Your task to perform on an android device: delete browsing data in the chrome app Image 0: 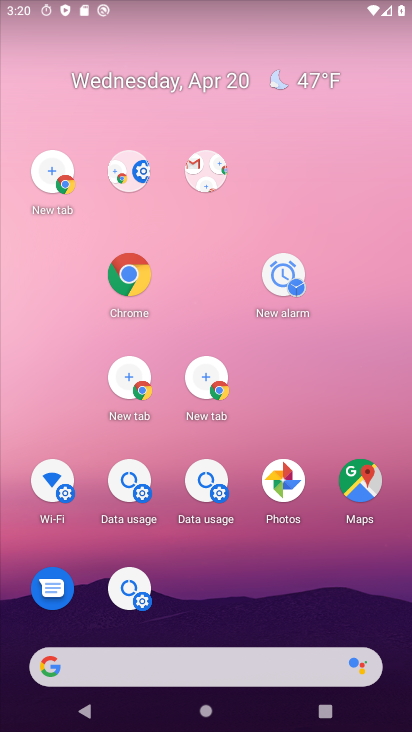
Step 0: drag from (246, 426) to (203, 193)
Your task to perform on an android device: delete browsing data in the chrome app Image 1: 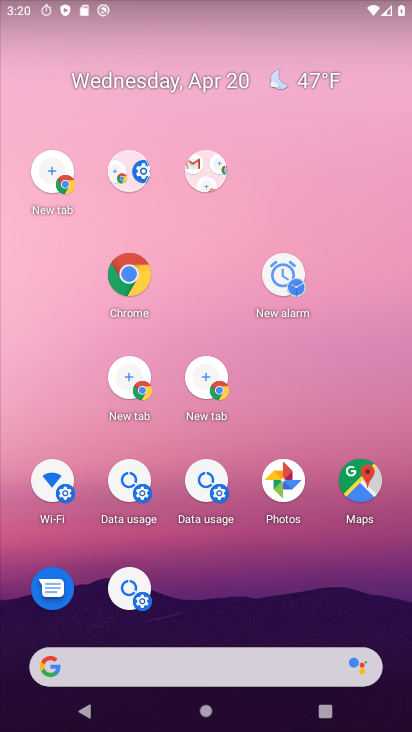
Step 1: click (126, 282)
Your task to perform on an android device: delete browsing data in the chrome app Image 2: 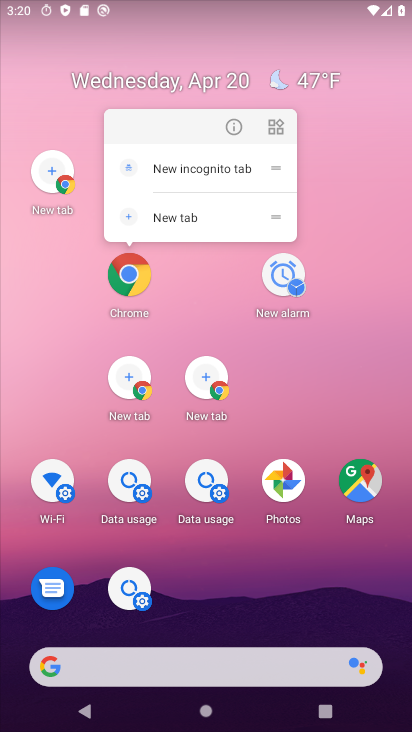
Step 2: click (158, 222)
Your task to perform on an android device: delete browsing data in the chrome app Image 3: 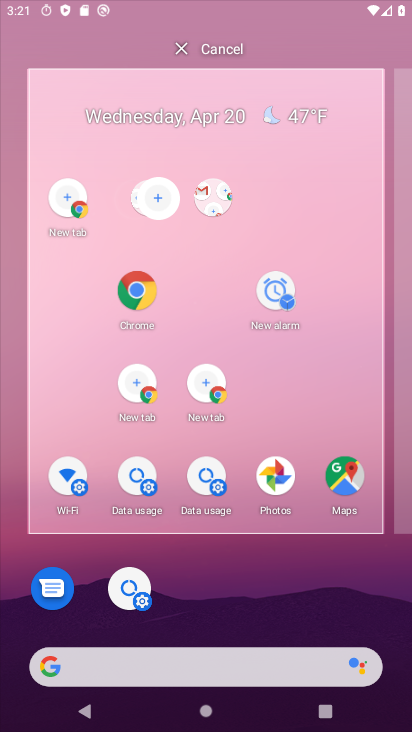
Step 3: click (159, 222)
Your task to perform on an android device: delete browsing data in the chrome app Image 4: 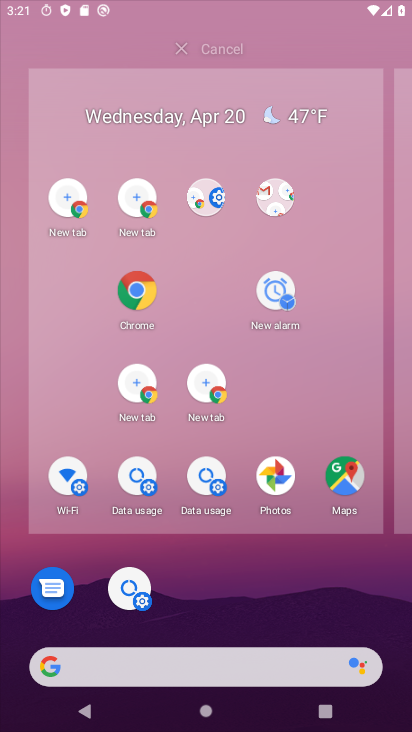
Step 4: click (160, 222)
Your task to perform on an android device: delete browsing data in the chrome app Image 5: 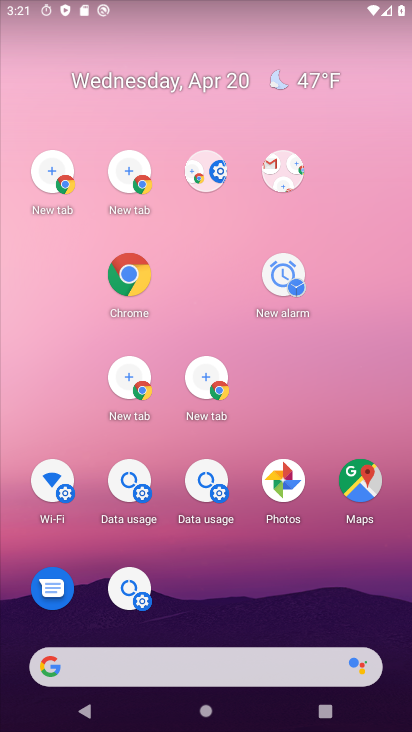
Step 5: click (164, 242)
Your task to perform on an android device: delete browsing data in the chrome app Image 6: 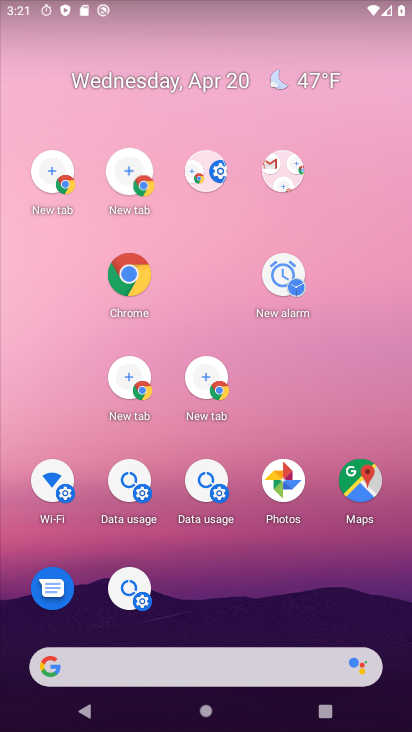
Step 6: click (123, 281)
Your task to perform on an android device: delete browsing data in the chrome app Image 7: 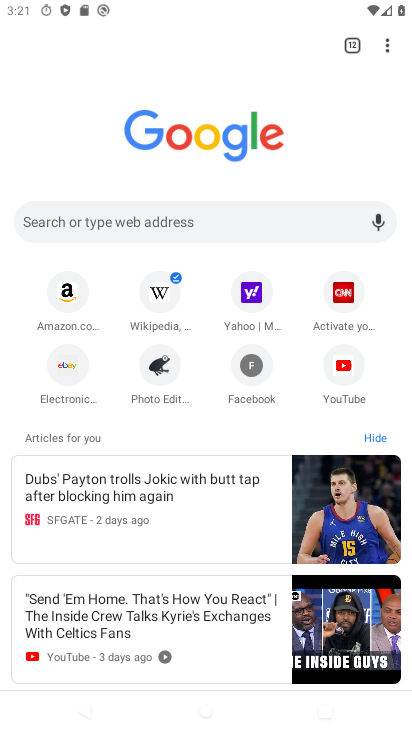
Step 7: drag from (389, 31) to (219, 313)
Your task to perform on an android device: delete browsing data in the chrome app Image 8: 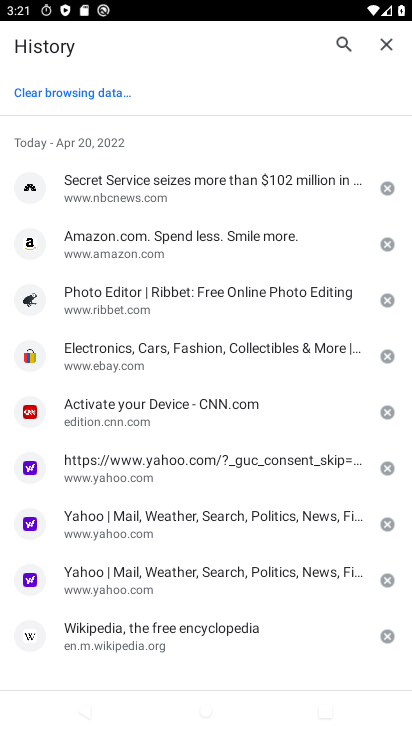
Step 8: click (172, 184)
Your task to perform on an android device: delete browsing data in the chrome app Image 9: 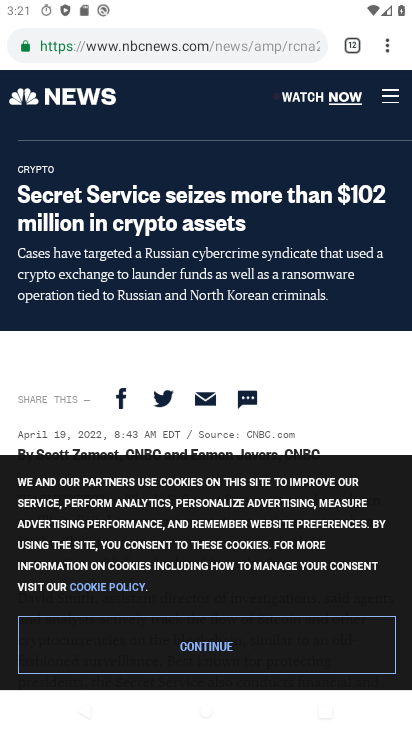
Step 9: click (388, 45)
Your task to perform on an android device: delete browsing data in the chrome app Image 10: 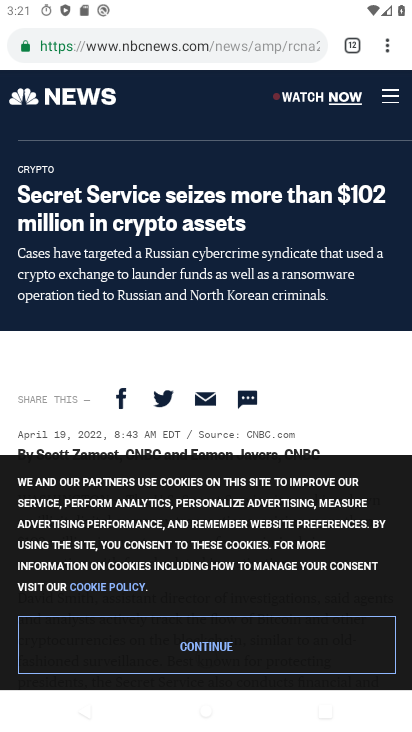
Step 10: drag from (387, 46) to (213, 313)
Your task to perform on an android device: delete browsing data in the chrome app Image 11: 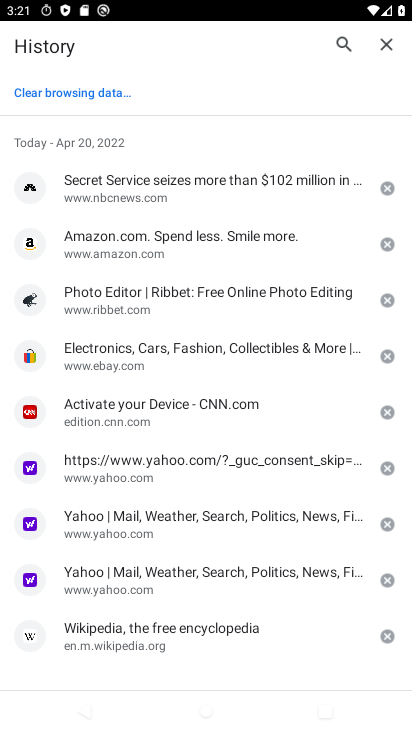
Step 11: click (387, 186)
Your task to perform on an android device: delete browsing data in the chrome app Image 12: 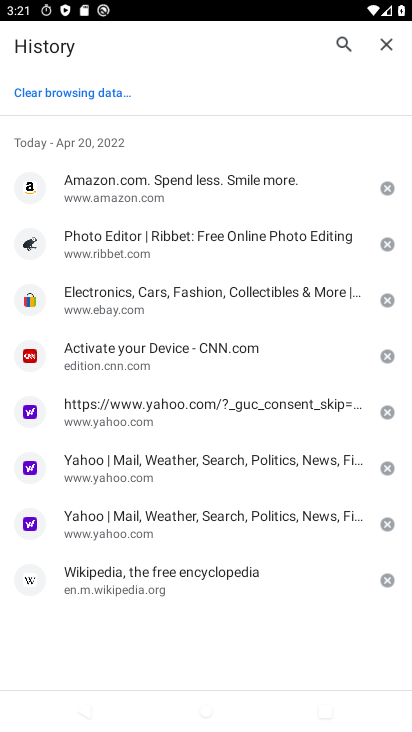
Step 12: task complete